Your task to perform on an android device: turn off sleep mode Image 0: 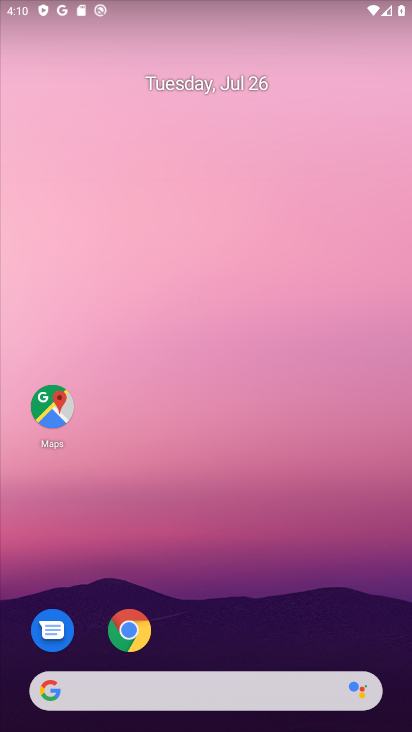
Step 0: drag from (349, 625) to (315, 103)
Your task to perform on an android device: turn off sleep mode Image 1: 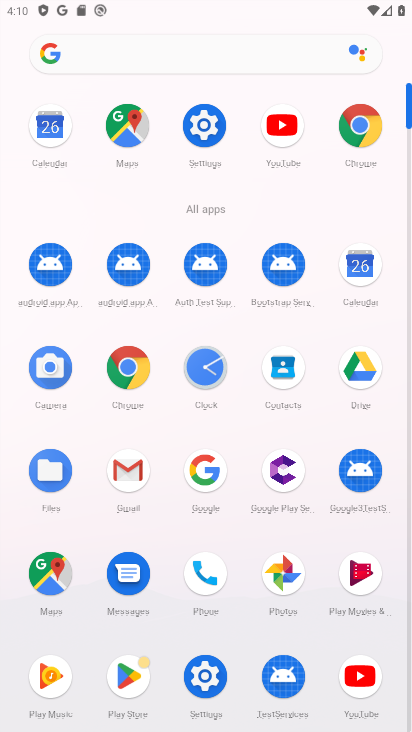
Step 1: click (207, 128)
Your task to perform on an android device: turn off sleep mode Image 2: 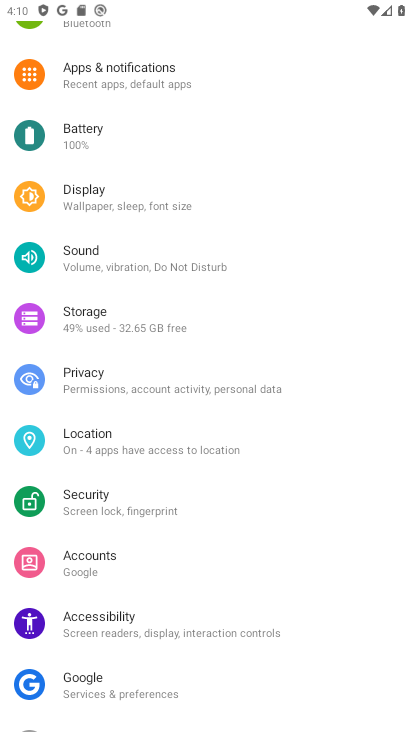
Step 2: click (117, 204)
Your task to perform on an android device: turn off sleep mode Image 3: 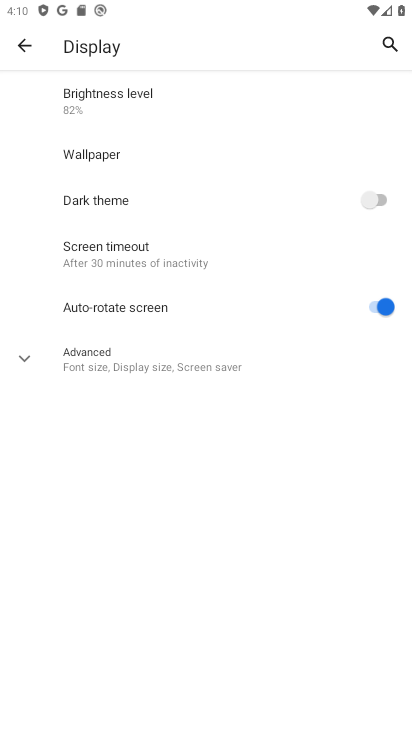
Step 3: click (133, 246)
Your task to perform on an android device: turn off sleep mode Image 4: 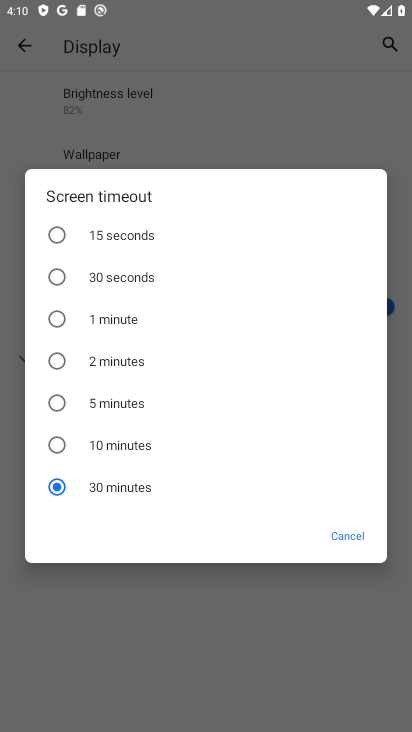
Step 4: task complete